Your task to perform on an android device: toggle location history Image 0: 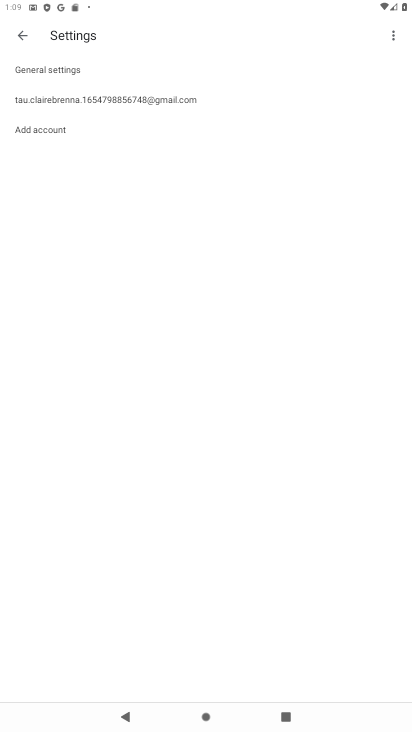
Step 0: press home button
Your task to perform on an android device: toggle location history Image 1: 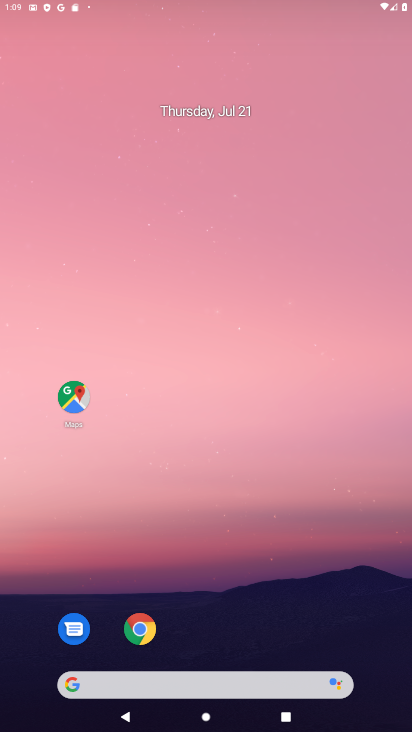
Step 1: drag from (210, 644) to (293, 120)
Your task to perform on an android device: toggle location history Image 2: 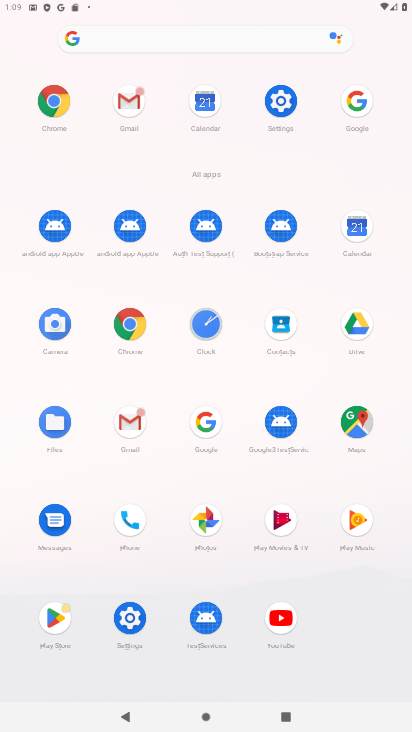
Step 2: click (284, 101)
Your task to perform on an android device: toggle location history Image 3: 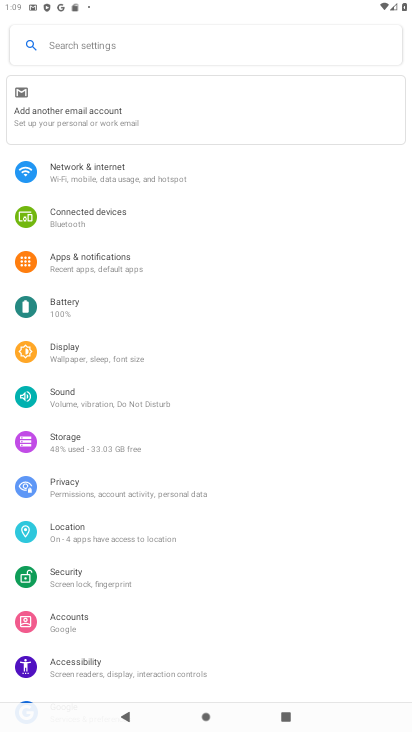
Step 3: click (73, 525)
Your task to perform on an android device: toggle location history Image 4: 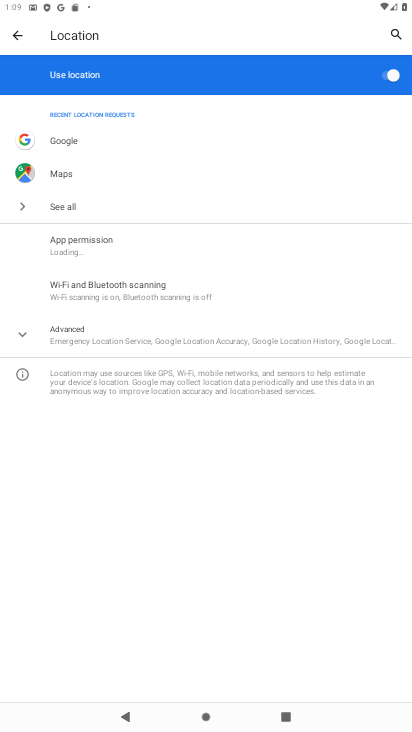
Step 4: click (70, 331)
Your task to perform on an android device: toggle location history Image 5: 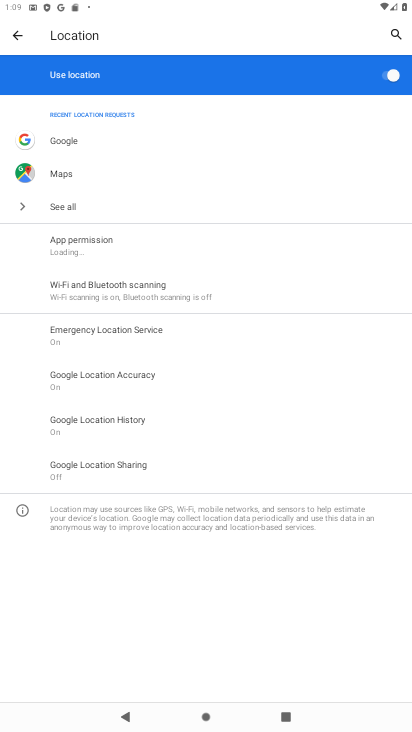
Step 5: click (110, 417)
Your task to perform on an android device: toggle location history Image 6: 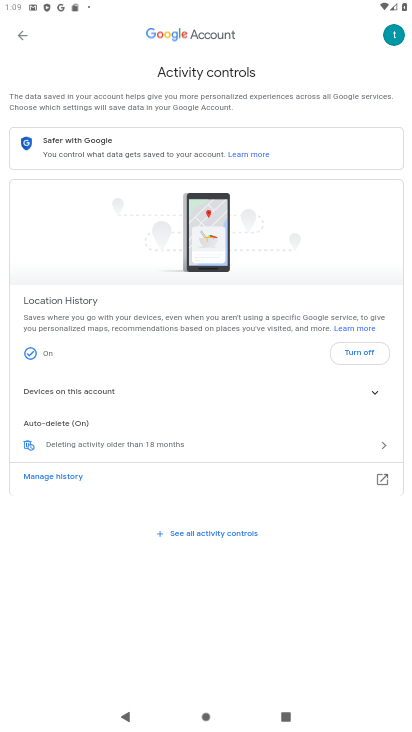
Step 6: click (355, 354)
Your task to perform on an android device: toggle location history Image 7: 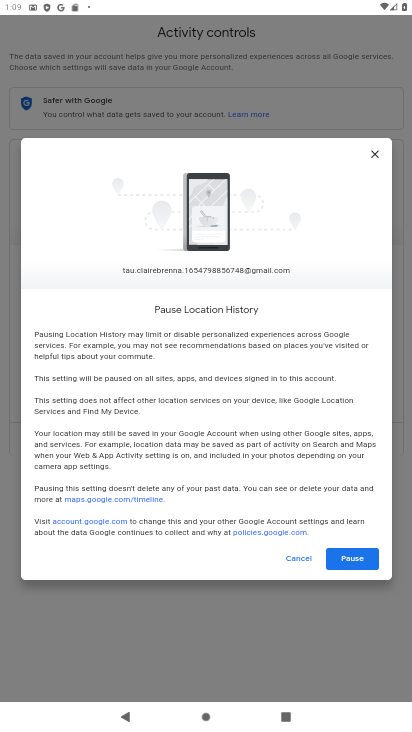
Step 7: click (357, 556)
Your task to perform on an android device: toggle location history Image 8: 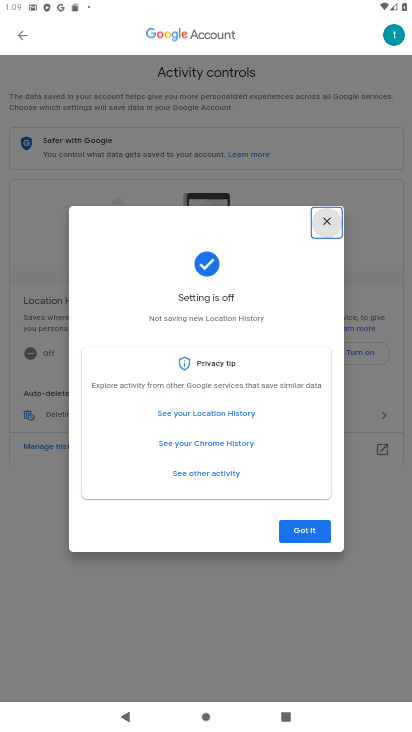
Step 8: task complete